Your task to perform on an android device: toggle sleep mode Image 0: 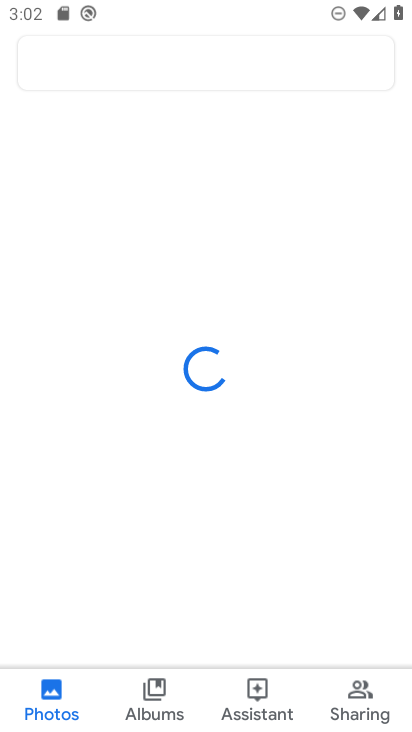
Step 0: press home button
Your task to perform on an android device: toggle sleep mode Image 1: 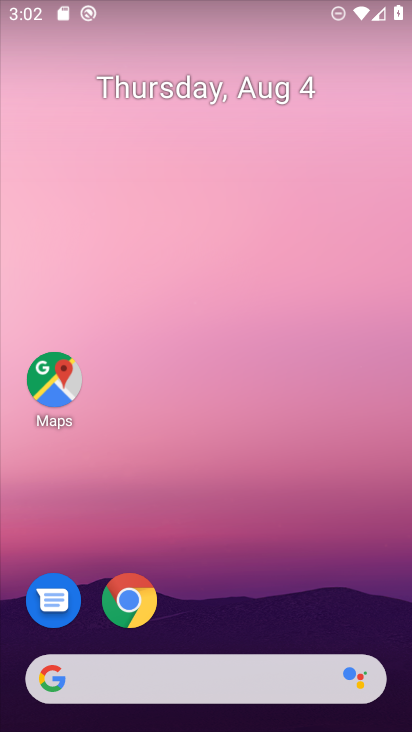
Step 1: drag from (150, 680) to (271, 115)
Your task to perform on an android device: toggle sleep mode Image 2: 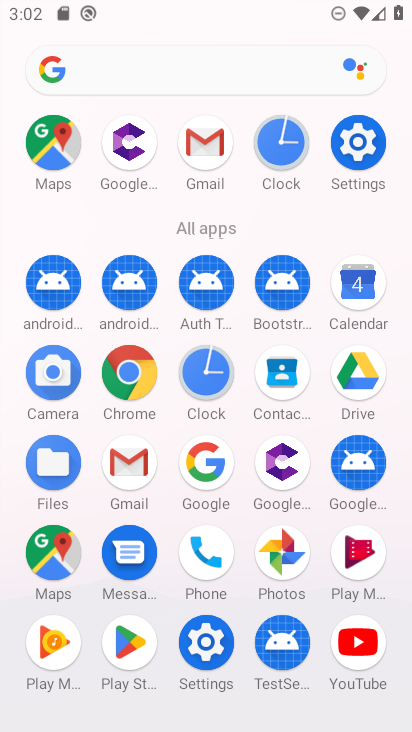
Step 2: click (347, 144)
Your task to perform on an android device: toggle sleep mode Image 3: 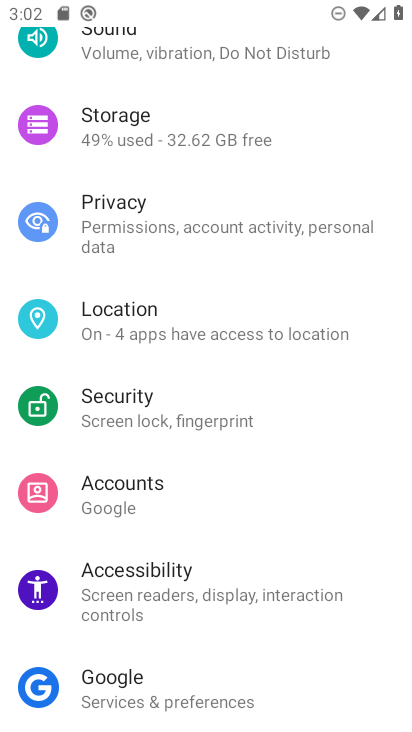
Step 3: drag from (274, 189) to (264, 676)
Your task to perform on an android device: toggle sleep mode Image 4: 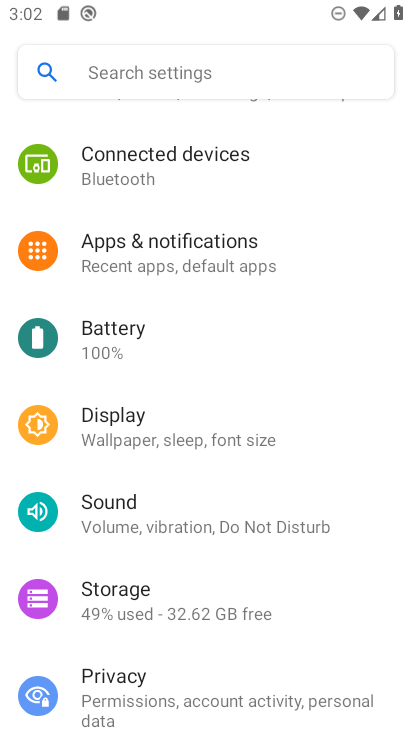
Step 4: click (194, 429)
Your task to perform on an android device: toggle sleep mode Image 5: 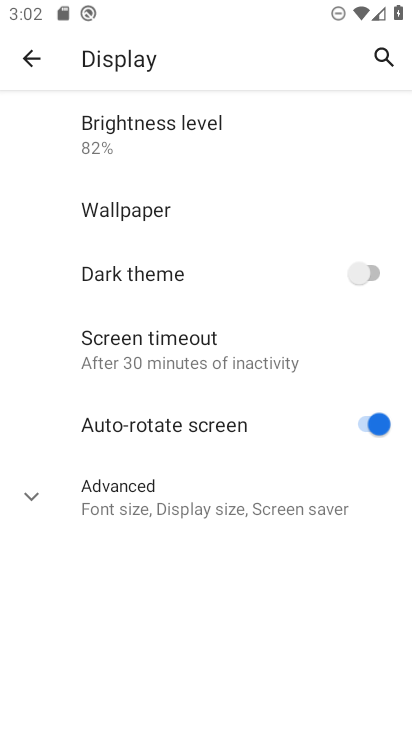
Step 5: task complete